Your task to perform on an android device: Go to Maps Image 0: 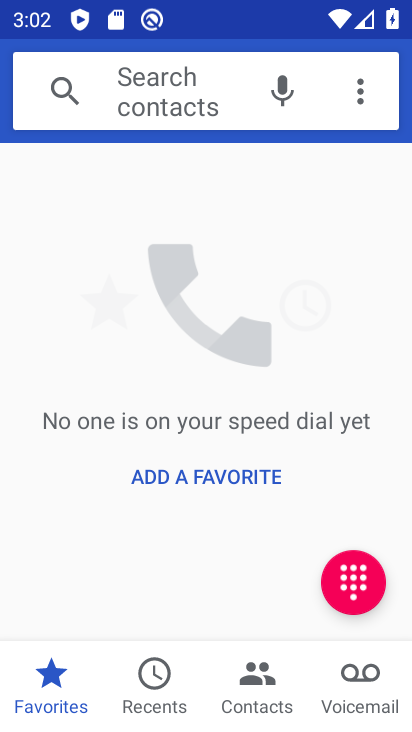
Step 0: press home button
Your task to perform on an android device: Go to Maps Image 1: 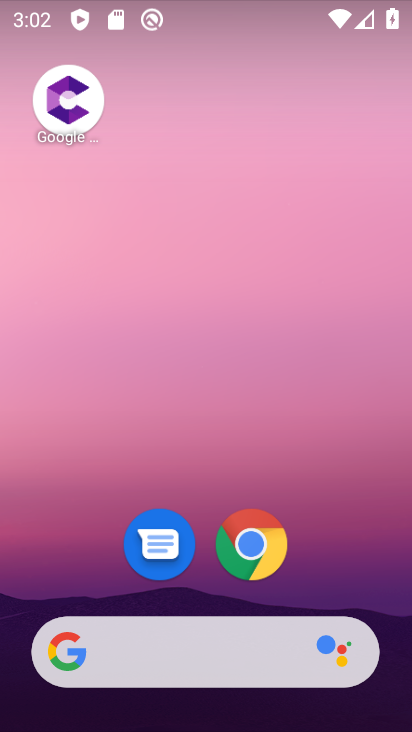
Step 1: drag from (324, 629) to (326, 73)
Your task to perform on an android device: Go to Maps Image 2: 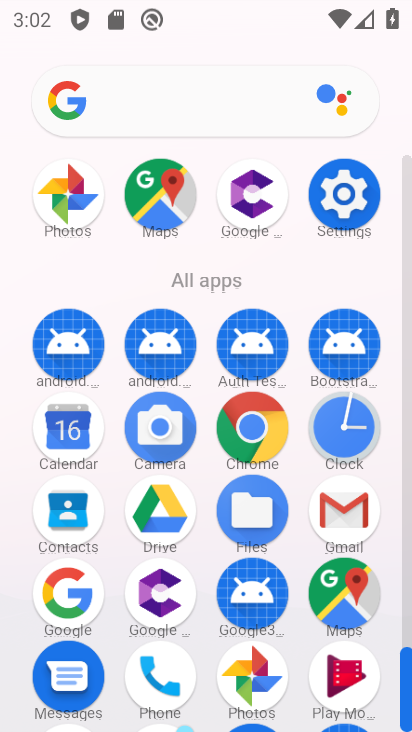
Step 2: click (327, 597)
Your task to perform on an android device: Go to Maps Image 3: 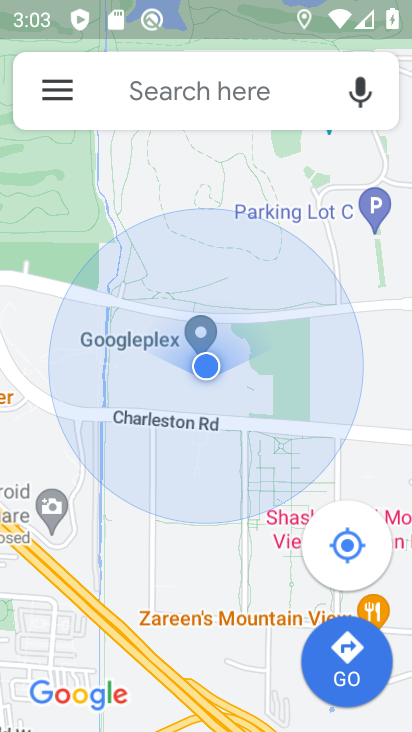
Step 3: task complete